Your task to perform on an android device: Open the calendar and show me this week's events? Image 0: 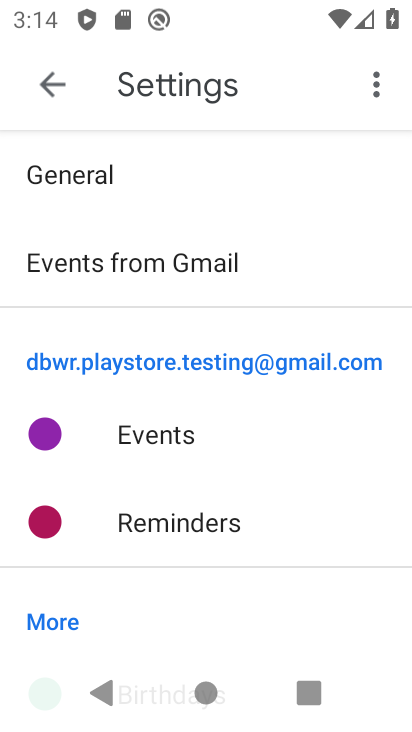
Step 0: press home button
Your task to perform on an android device: Open the calendar and show me this week's events? Image 1: 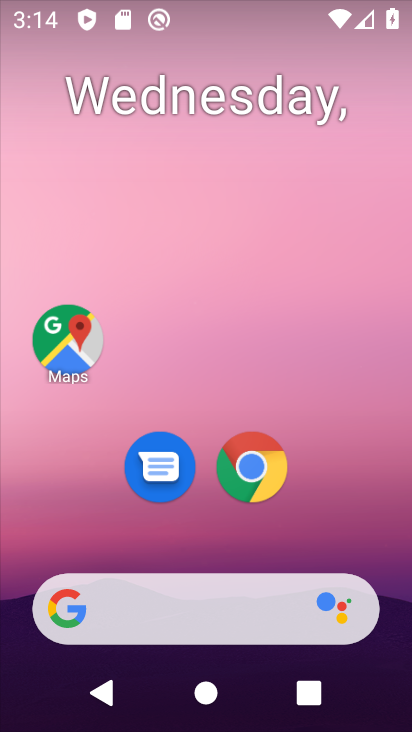
Step 1: drag from (388, 580) to (268, 10)
Your task to perform on an android device: Open the calendar and show me this week's events? Image 2: 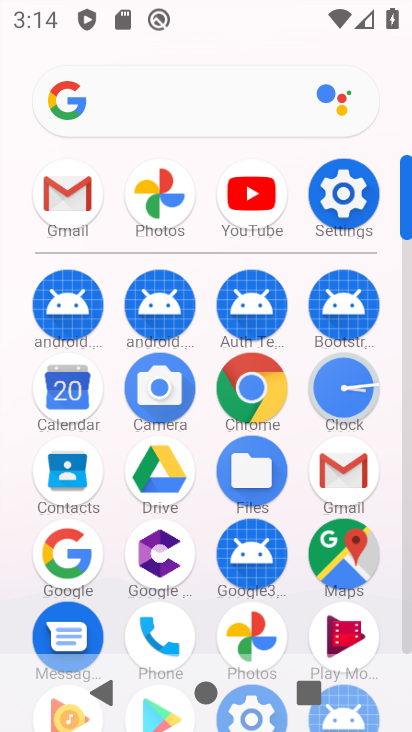
Step 2: click (401, 628)
Your task to perform on an android device: Open the calendar and show me this week's events? Image 3: 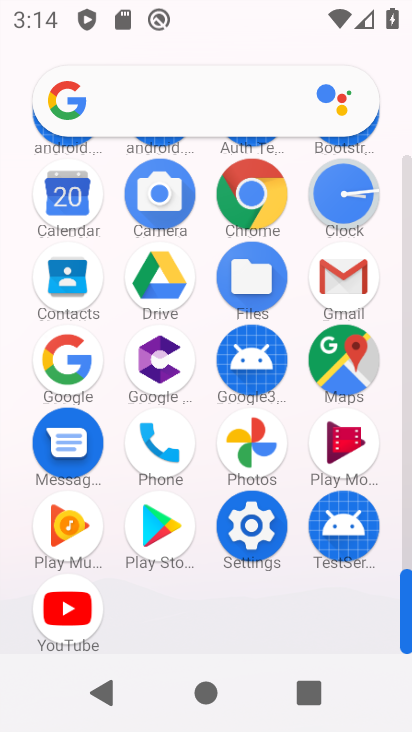
Step 3: click (59, 188)
Your task to perform on an android device: Open the calendar and show me this week's events? Image 4: 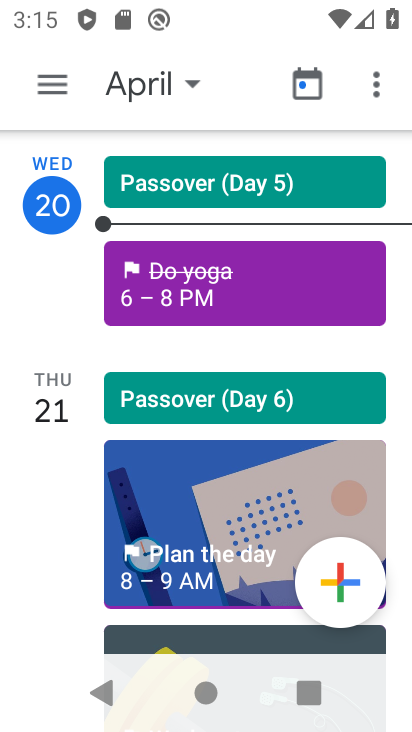
Step 4: click (54, 91)
Your task to perform on an android device: Open the calendar and show me this week's events? Image 5: 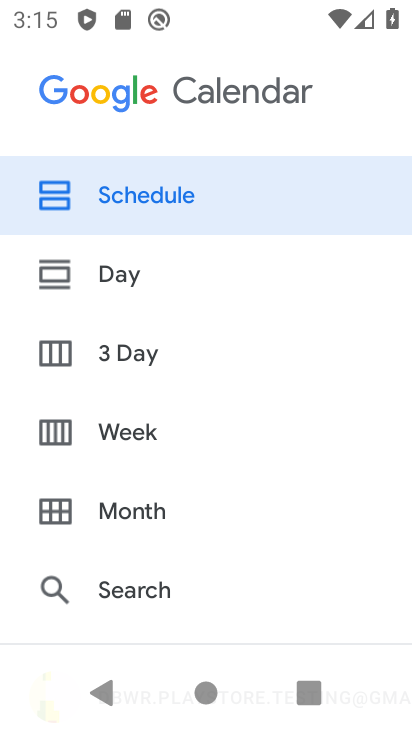
Step 5: click (134, 423)
Your task to perform on an android device: Open the calendar and show me this week's events? Image 6: 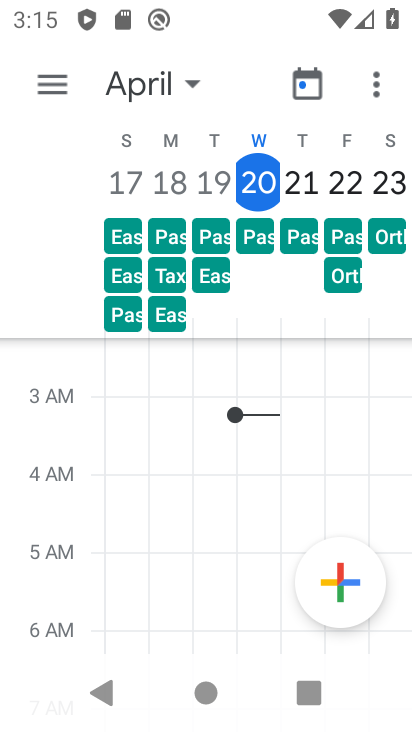
Step 6: task complete